Your task to perform on an android device: toggle javascript in the chrome app Image 0: 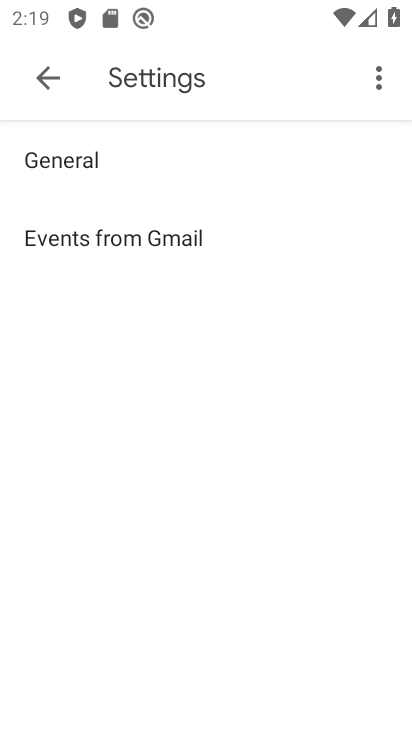
Step 0: press home button
Your task to perform on an android device: toggle javascript in the chrome app Image 1: 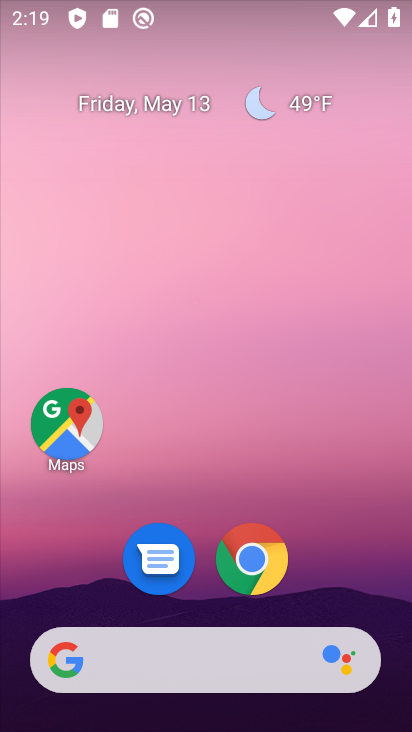
Step 1: click (243, 557)
Your task to perform on an android device: toggle javascript in the chrome app Image 2: 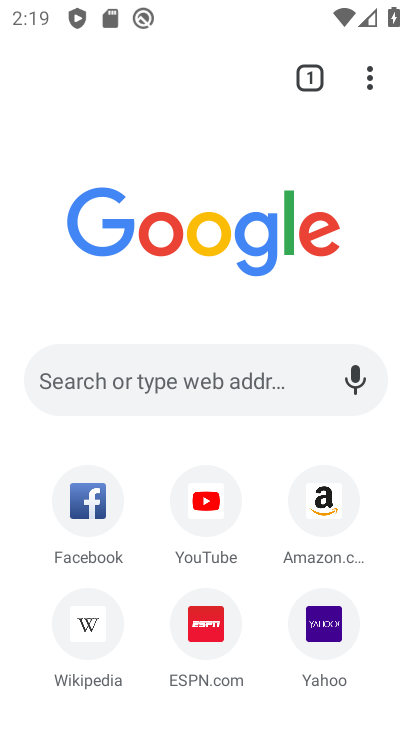
Step 2: click (369, 85)
Your task to perform on an android device: toggle javascript in the chrome app Image 3: 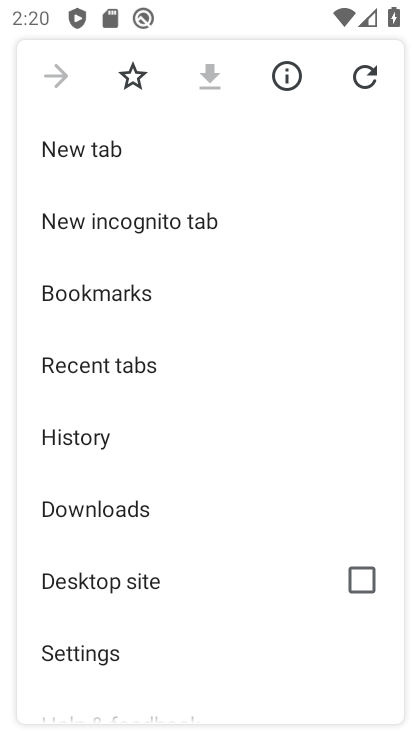
Step 3: click (94, 650)
Your task to perform on an android device: toggle javascript in the chrome app Image 4: 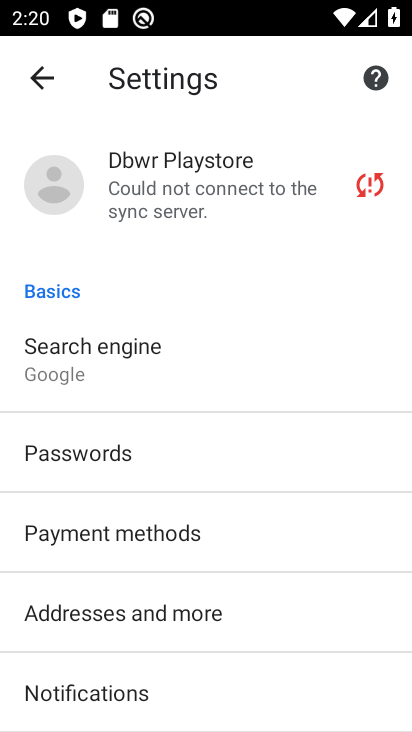
Step 4: drag from (278, 636) to (265, 319)
Your task to perform on an android device: toggle javascript in the chrome app Image 5: 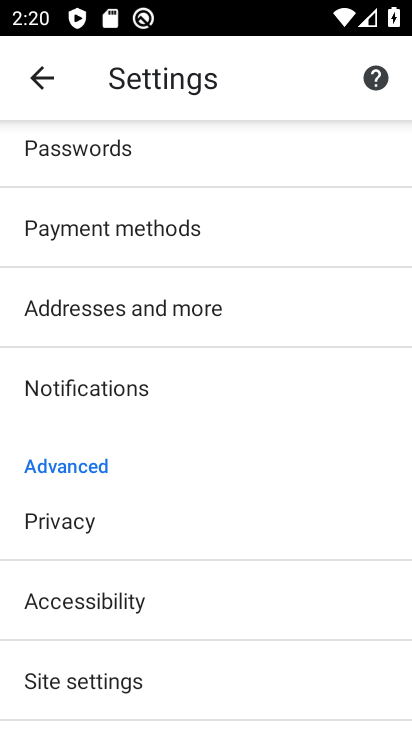
Step 5: drag from (260, 639) to (228, 263)
Your task to perform on an android device: toggle javascript in the chrome app Image 6: 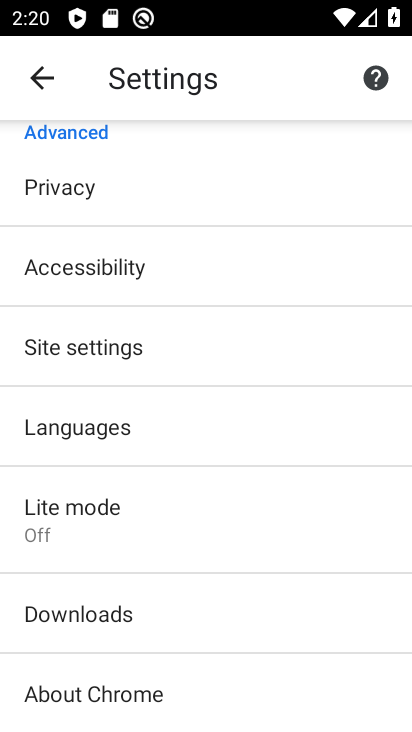
Step 6: click (66, 349)
Your task to perform on an android device: toggle javascript in the chrome app Image 7: 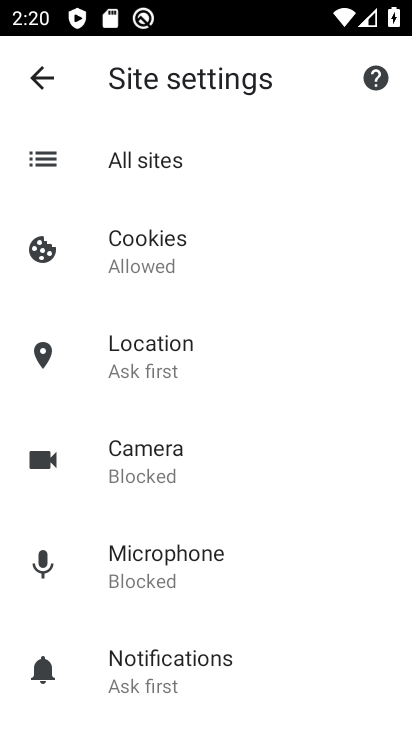
Step 7: drag from (277, 677) to (215, 226)
Your task to perform on an android device: toggle javascript in the chrome app Image 8: 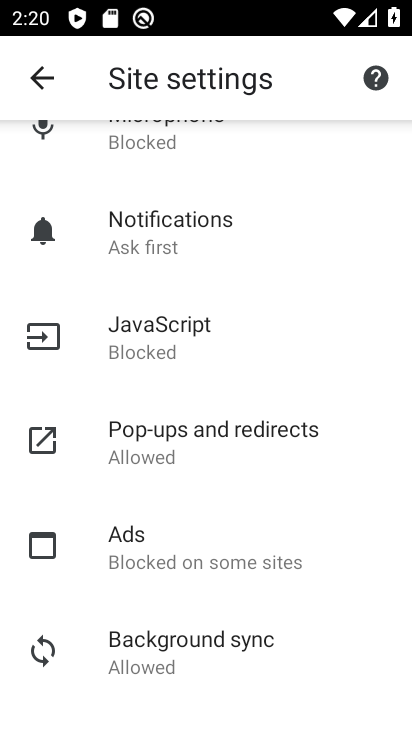
Step 8: click (148, 339)
Your task to perform on an android device: toggle javascript in the chrome app Image 9: 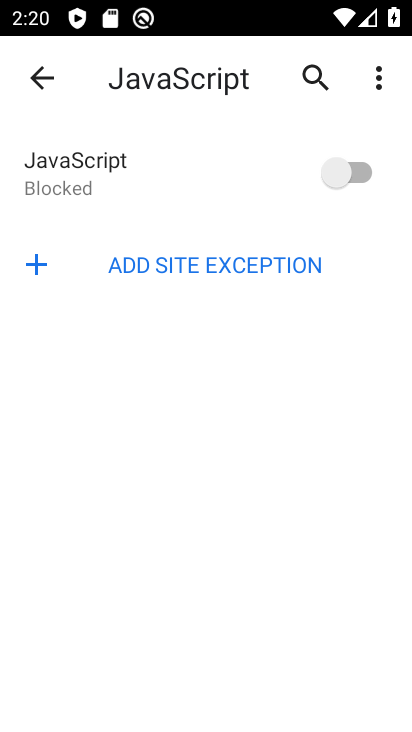
Step 9: click (363, 167)
Your task to perform on an android device: toggle javascript in the chrome app Image 10: 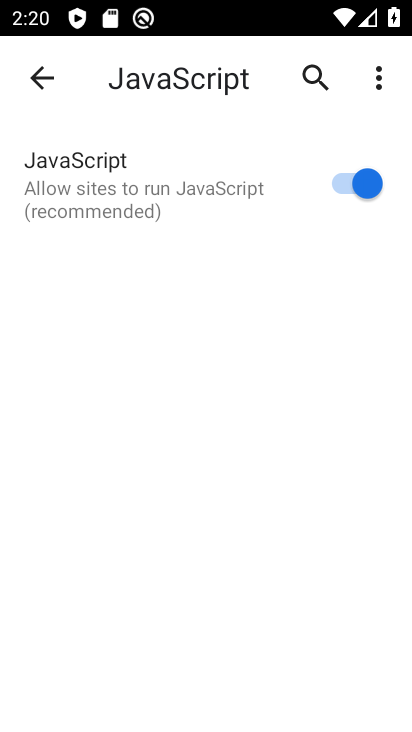
Step 10: task complete